Your task to perform on an android device: When is my next meeting? Image 0: 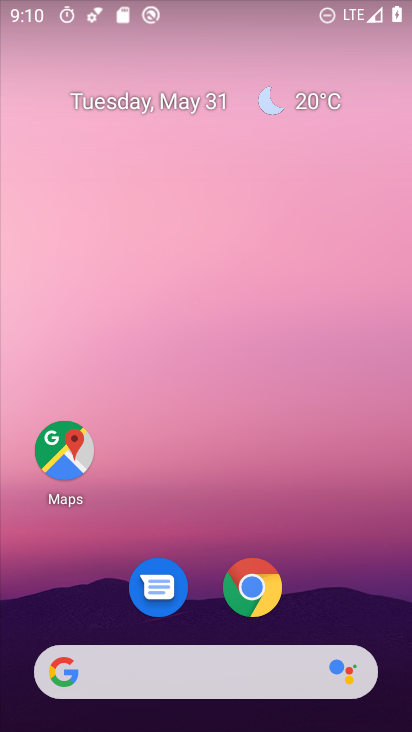
Step 0: click (176, 97)
Your task to perform on an android device: When is my next meeting? Image 1: 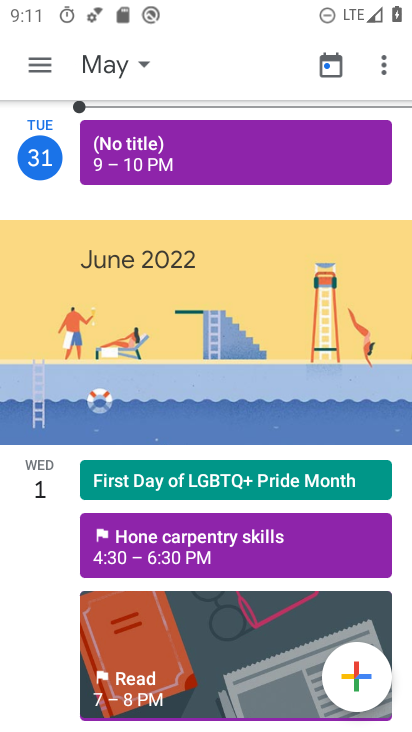
Step 1: click (124, 73)
Your task to perform on an android device: When is my next meeting? Image 2: 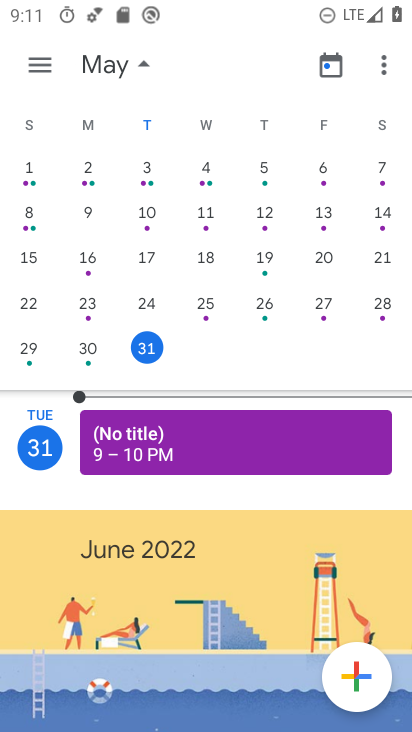
Step 2: click (81, 483)
Your task to perform on an android device: When is my next meeting? Image 3: 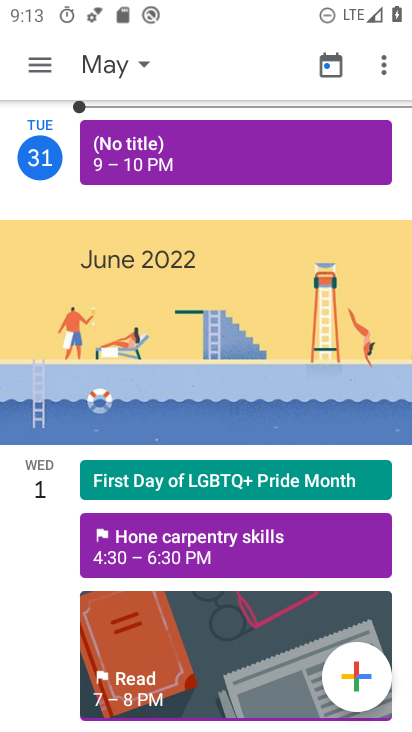
Step 3: task complete